Your task to perform on an android device: Go to calendar. Show me events next week Image 0: 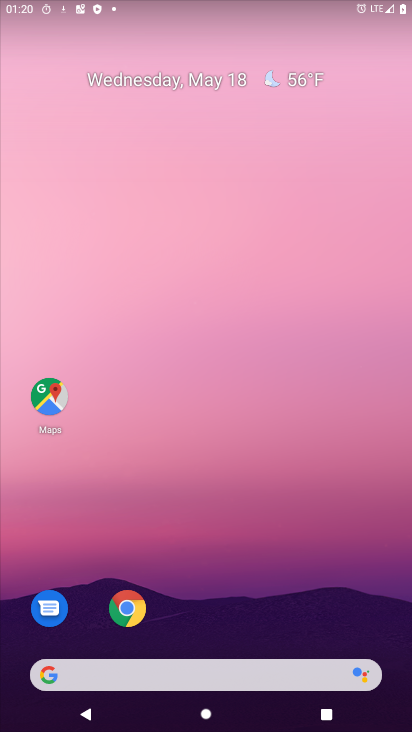
Step 0: drag from (294, 683) to (108, 26)
Your task to perform on an android device: Go to calendar. Show me events next week Image 1: 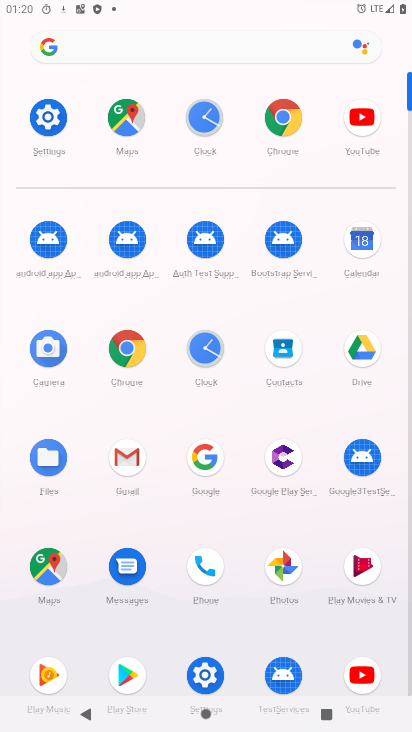
Step 1: click (354, 235)
Your task to perform on an android device: Go to calendar. Show me events next week Image 2: 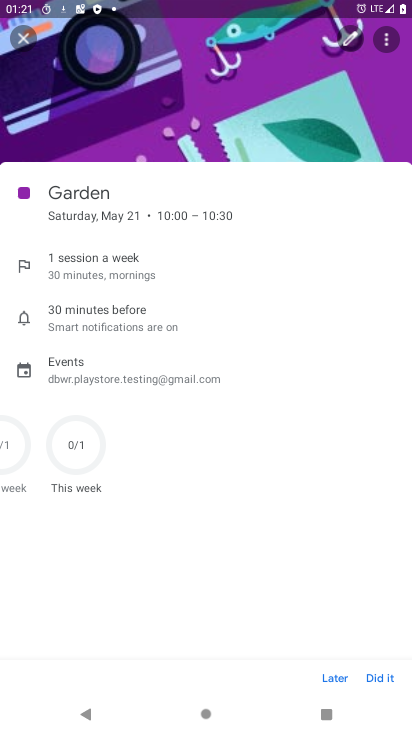
Step 2: click (24, 55)
Your task to perform on an android device: Go to calendar. Show me events next week Image 3: 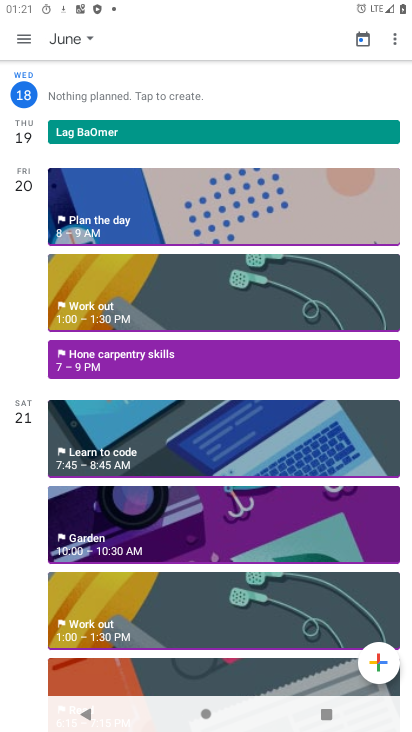
Step 3: click (31, 38)
Your task to perform on an android device: Go to calendar. Show me events next week Image 4: 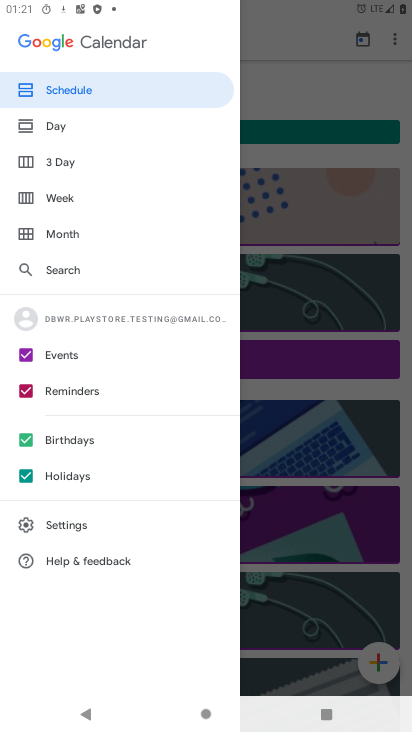
Step 4: click (61, 233)
Your task to perform on an android device: Go to calendar. Show me events next week Image 5: 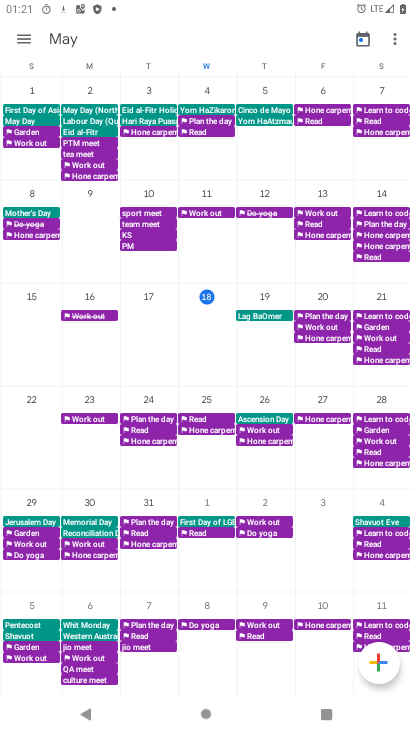
Step 5: drag from (58, 356) to (380, 308)
Your task to perform on an android device: Go to calendar. Show me events next week Image 6: 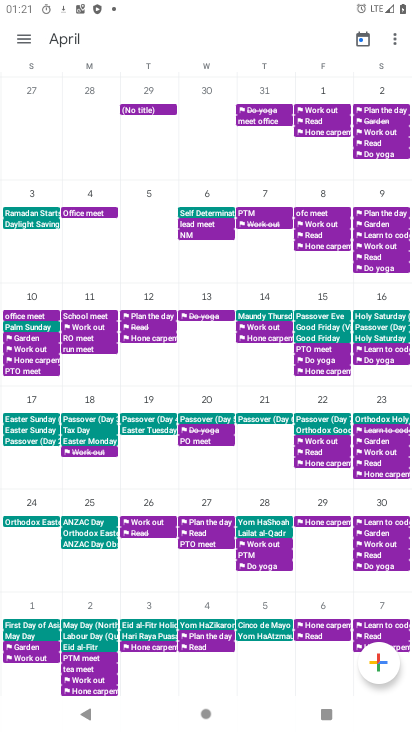
Step 6: click (16, 42)
Your task to perform on an android device: Go to calendar. Show me events next week Image 7: 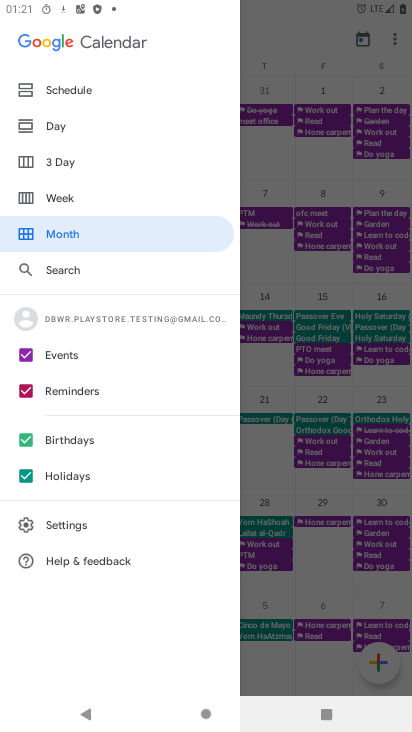
Step 7: click (309, 287)
Your task to perform on an android device: Go to calendar. Show me events next week Image 8: 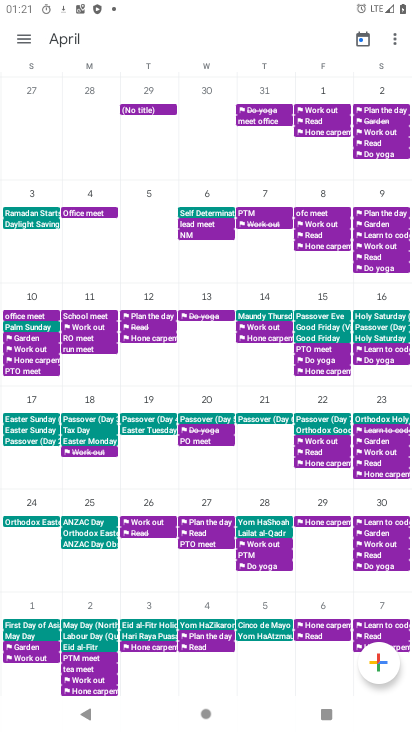
Step 8: drag from (395, 381) to (0, 135)
Your task to perform on an android device: Go to calendar. Show me events next week Image 9: 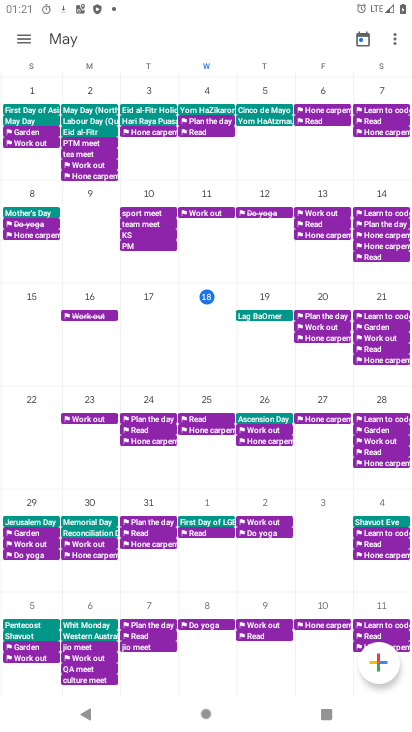
Step 9: click (21, 32)
Your task to perform on an android device: Go to calendar. Show me events next week Image 10: 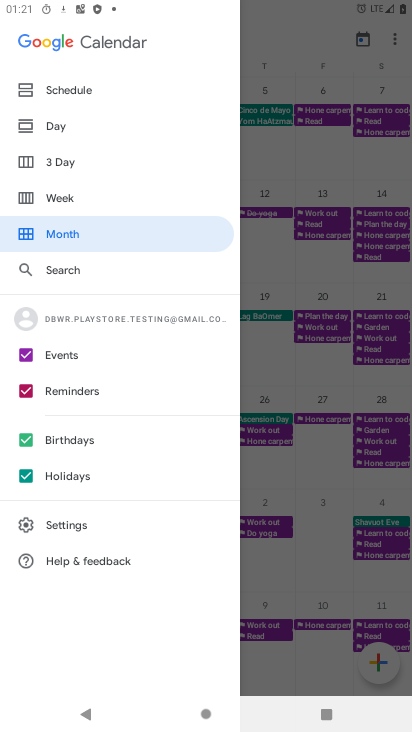
Step 10: click (62, 196)
Your task to perform on an android device: Go to calendar. Show me events next week Image 11: 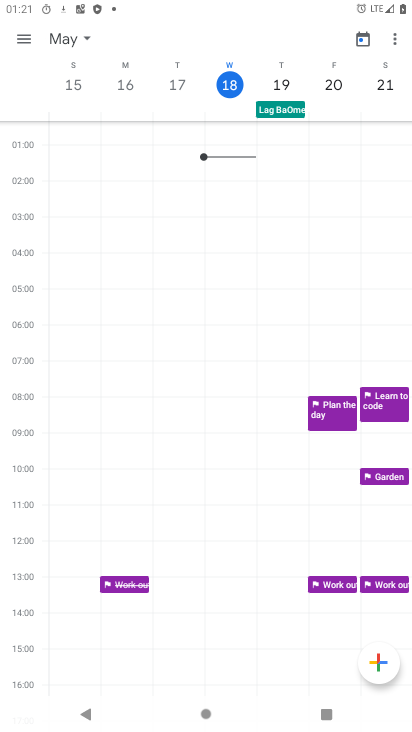
Step 11: task complete